Your task to perform on an android device: Open calendar and show me the second week of next month Image 0: 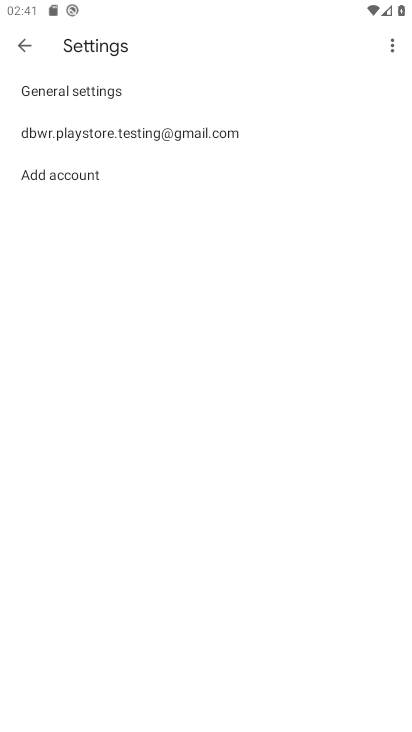
Step 0: press home button
Your task to perform on an android device: Open calendar and show me the second week of next month Image 1: 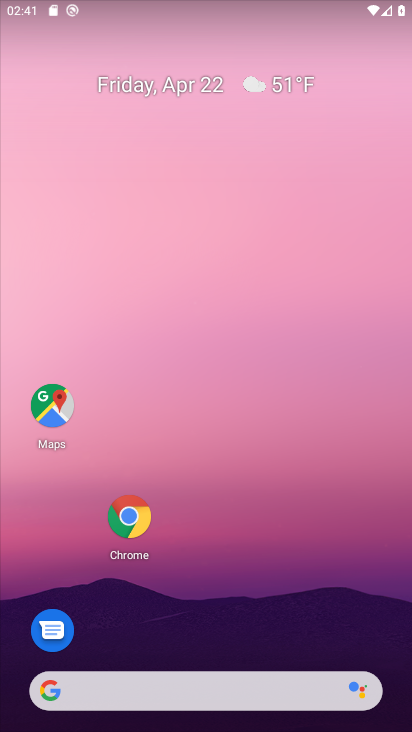
Step 1: drag from (380, 174) to (357, 77)
Your task to perform on an android device: Open calendar and show me the second week of next month Image 2: 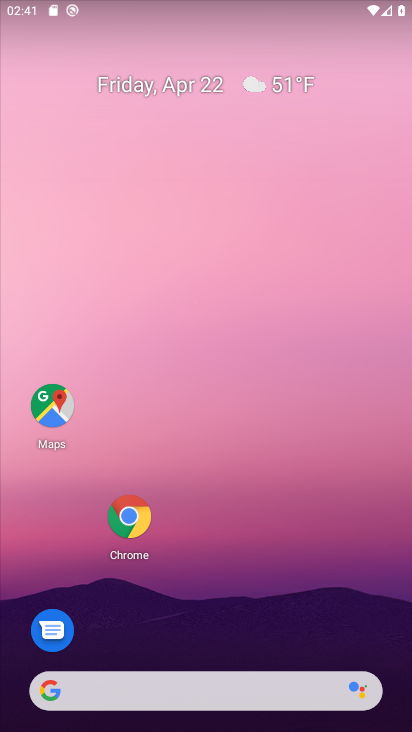
Step 2: click (327, 210)
Your task to perform on an android device: Open calendar and show me the second week of next month Image 3: 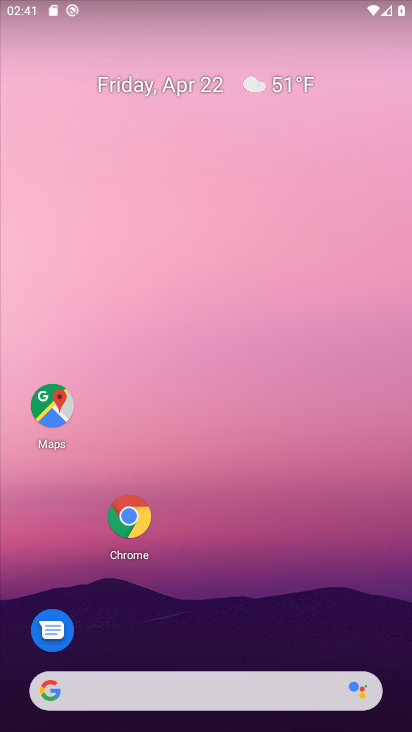
Step 3: drag from (387, 655) to (354, 186)
Your task to perform on an android device: Open calendar and show me the second week of next month Image 4: 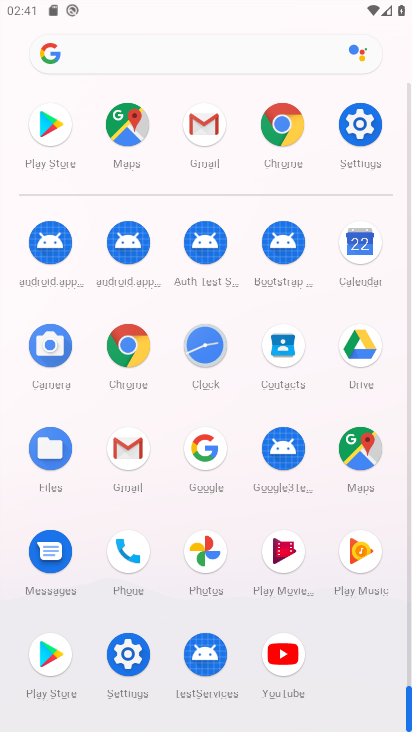
Step 4: click (354, 248)
Your task to perform on an android device: Open calendar and show me the second week of next month Image 5: 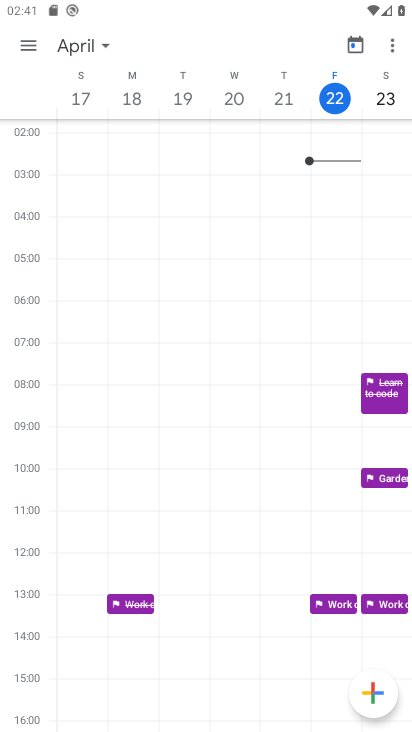
Step 5: click (93, 42)
Your task to perform on an android device: Open calendar and show me the second week of next month Image 6: 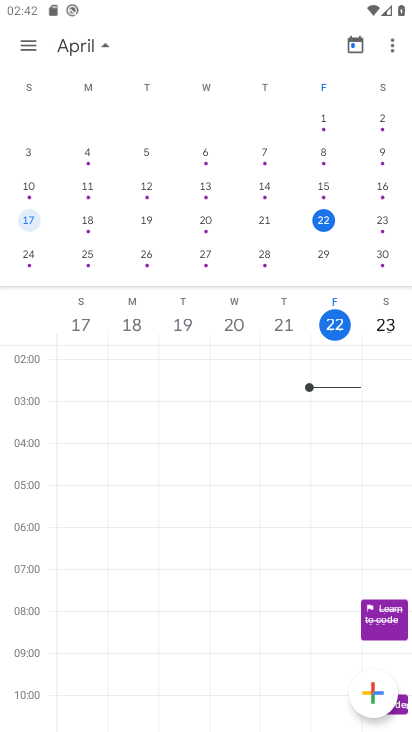
Step 6: drag from (392, 173) to (7, 144)
Your task to perform on an android device: Open calendar and show me the second week of next month Image 7: 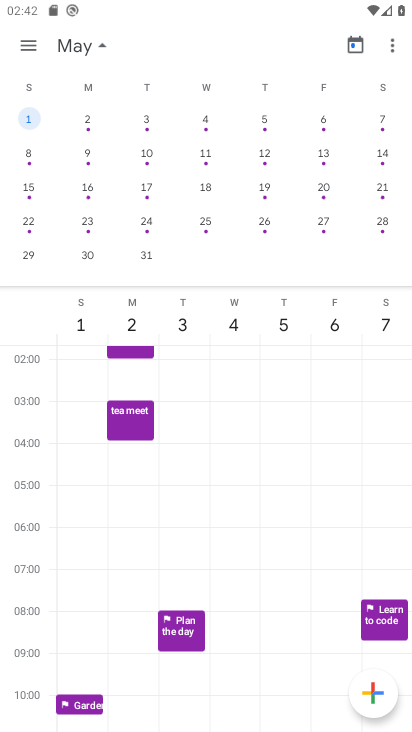
Step 7: click (257, 146)
Your task to perform on an android device: Open calendar and show me the second week of next month Image 8: 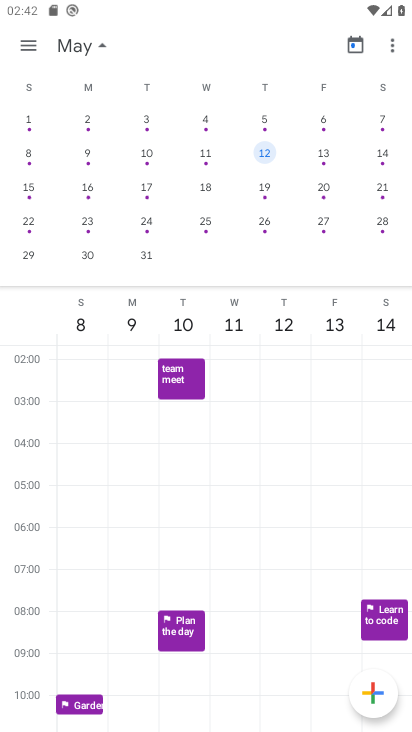
Step 8: click (20, 42)
Your task to perform on an android device: Open calendar and show me the second week of next month Image 9: 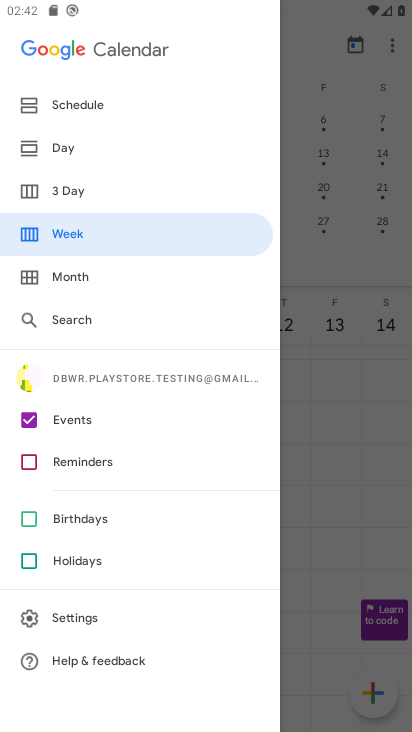
Step 9: click (63, 234)
Your task to perform on an android device: Open calendar and show me the second week of next month Image 10: 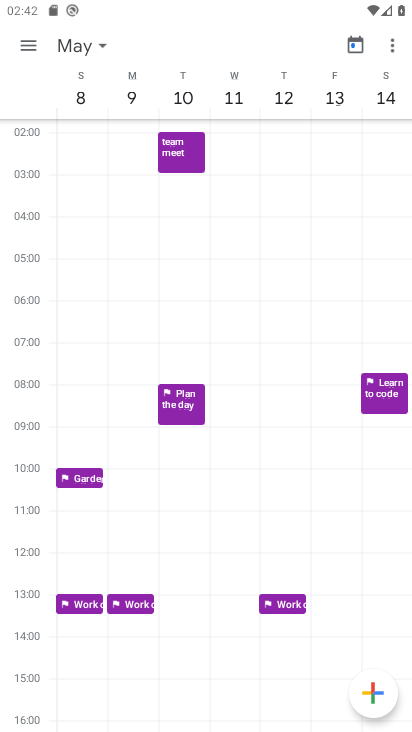
Step 10: task complete